Your task to perform on an android device: Open Youtube and go to "Your channel" Image 0: 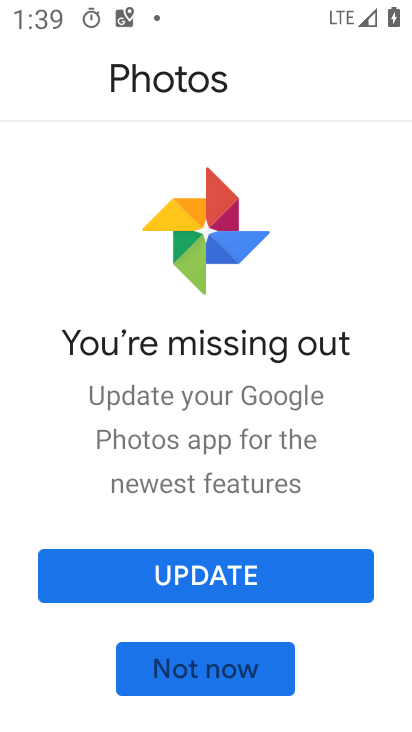
Step 0: press home button
Your task to perform on an android device: Open Youtube and go to "Your channel" Image 1: 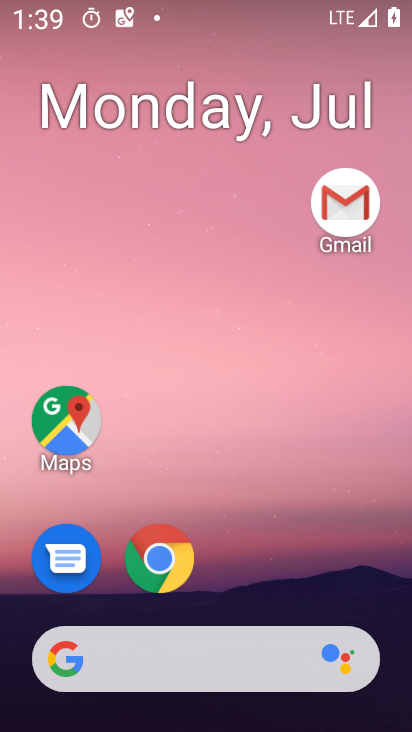
Step 1: drag from (346, 570) to (333, 112)
Your task to perform on an android device: Open Youtube and go to "Your channel" Image 2: 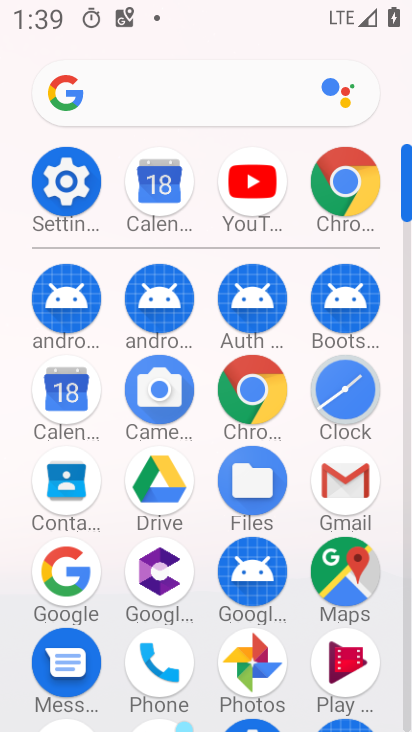
Step 2: click (253, 194)
Your task to perform on an android device: Open Youtube and go to "Your channel" Image 3: 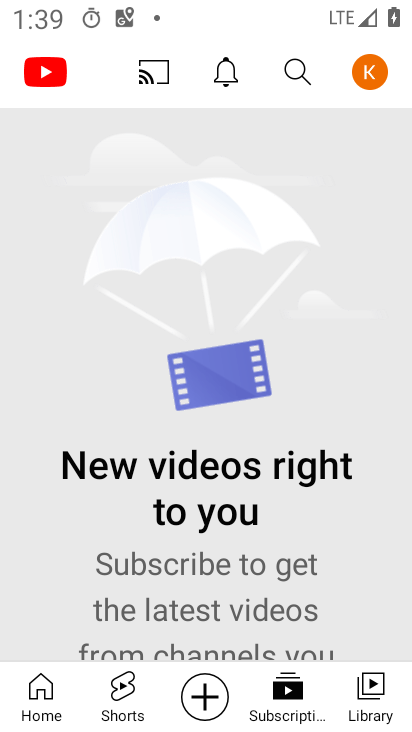
Step 3: click (365, 79)
Your task to perform on an android device: Open Youtube and go to "Your channel" Image 4: 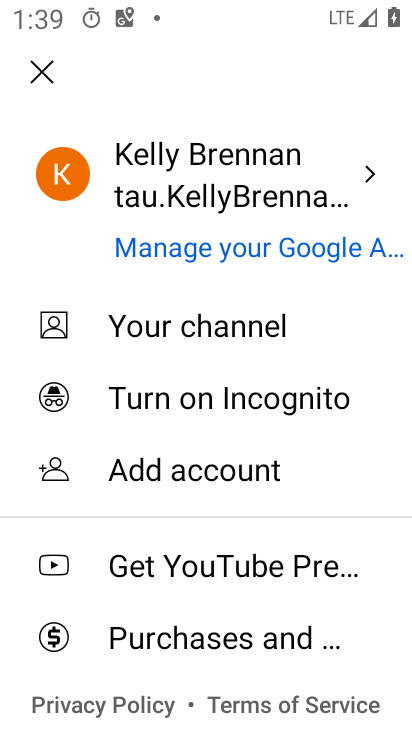
Step 4: click (245, 338)
Your task to perform on an android device: Open Youtube and go to "Your channel" Image 5: 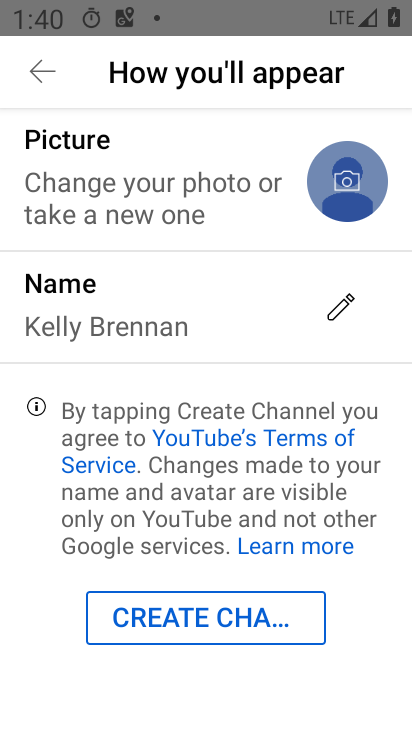
Step 5: task complete